Your task to perform on an android device: Go to internet settings Image 0: 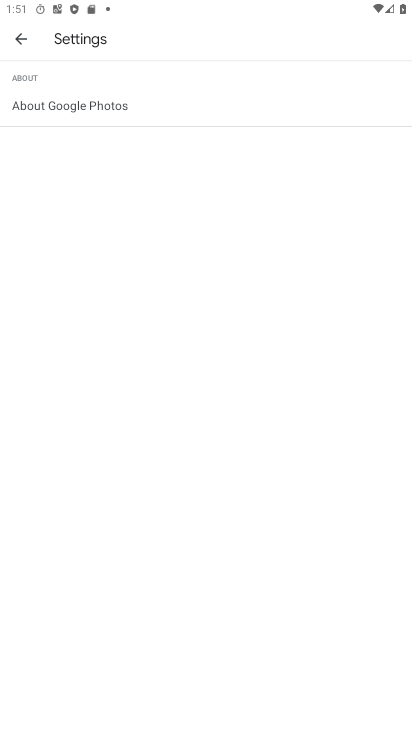
Step 0: press home button
Your task to perform on an android device: Go to internet settings Image 1: 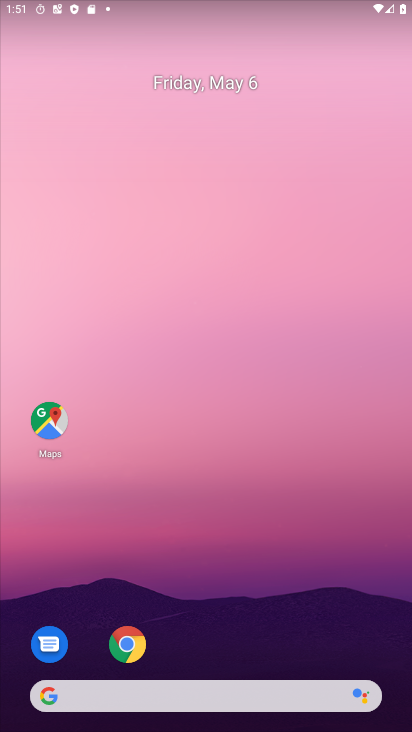
Step 1: drag from (195, 723) to (303, 6)
Your task to perform on an android device: Go to internet settings Image 2: 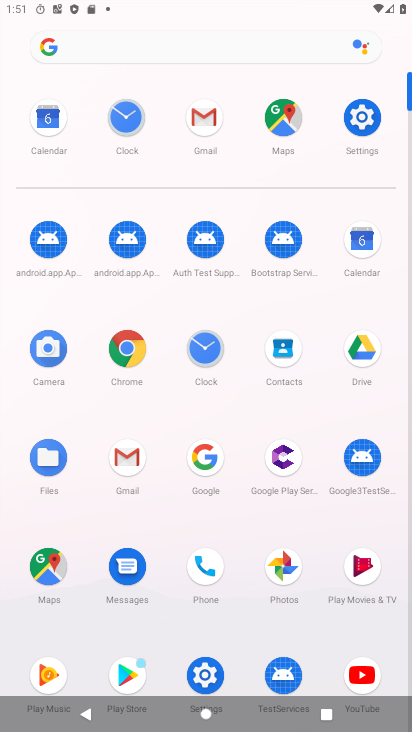
Step 2: click (357, 115)
Your task to perform on an android device: Go to internet settings Image 3: 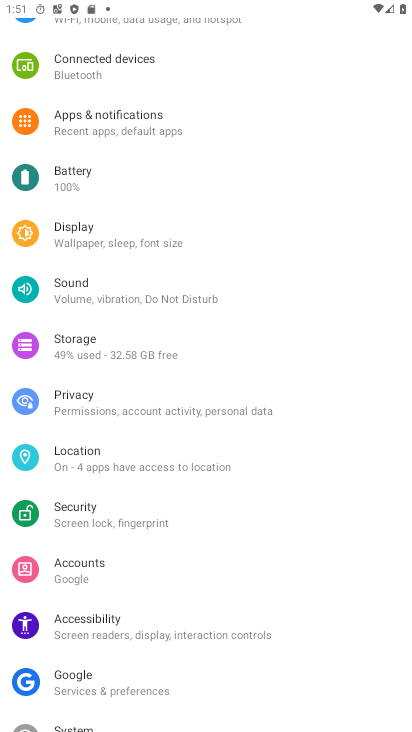
Step 3: drag from (221, 107) to (212, 577)
Your task to perform on an android device: Go to internet settings Image 4: 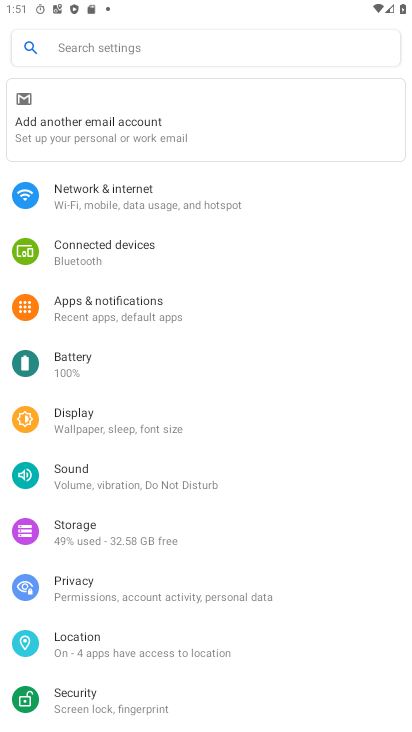
Step 4: click (178, 204)
Your task to perform on an android device: Go to internet settings Image 5: 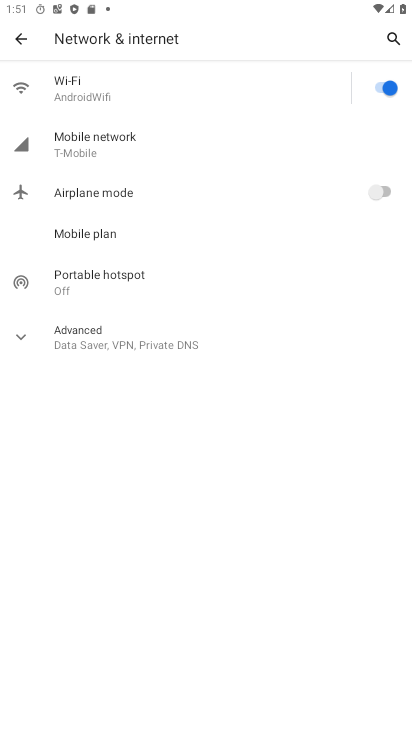
Step 5: task complete